Your task to perform on an android device: Go to privacy settings Image 0: 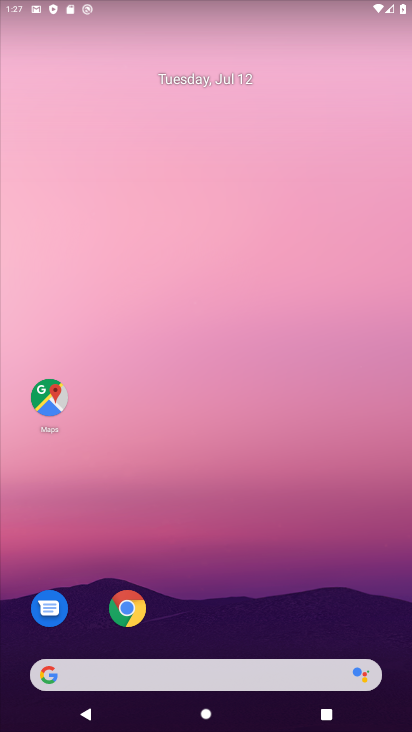
Step 0: drag from (261, 644) to (209, 260)
Your task to perform on an android device: Go to privacy settings Image 1: 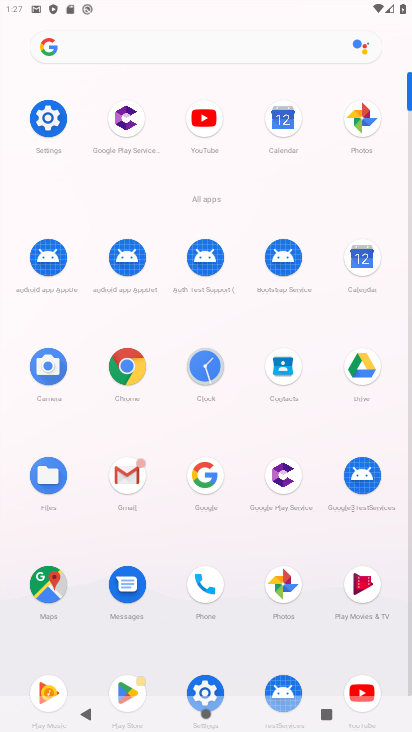
Step 1: click (50, 124)
Your task to perform on an android device: Go to privacy settings Image 2: 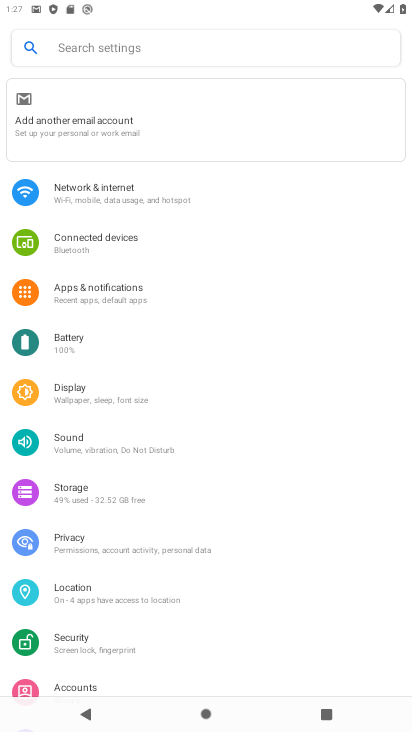
Step 2: click (135, 553)
Your task to perform on an android device: Go to privacy settings Image 3: 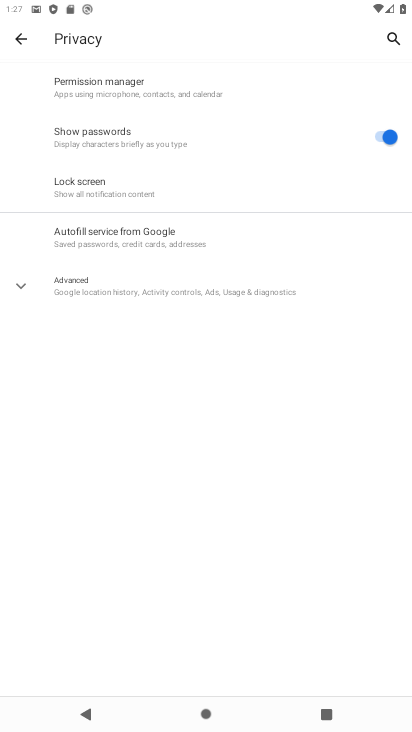
Step 3: task complete